Your task to perform on an android device: open a bookmark in the chrome app Image 0: 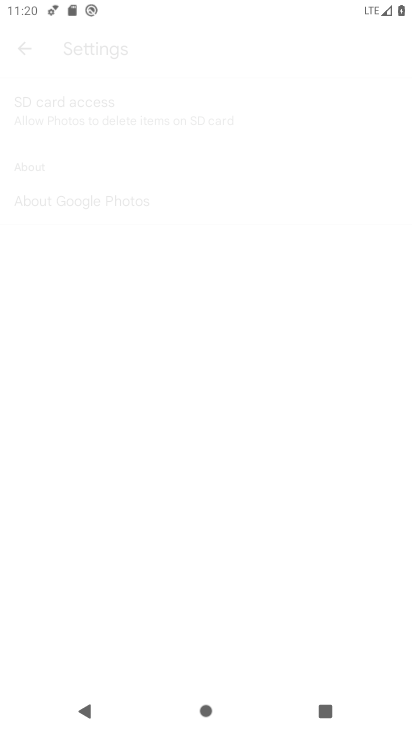
Step 0: drag from (206, 581) to (208, 7)
Your task to perform on an android device: open a bookmark in the chrome app Image 1: 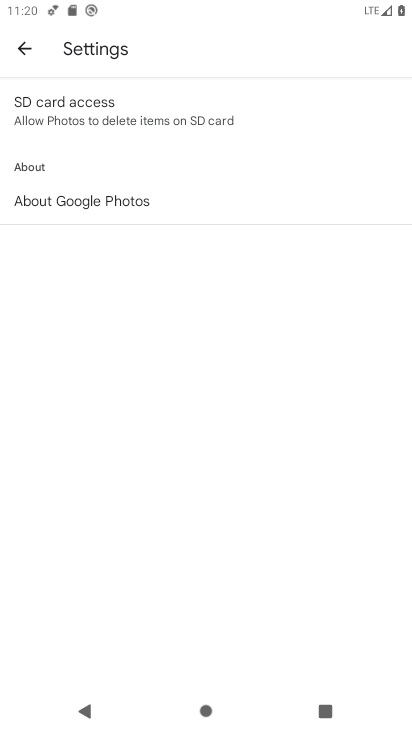
Step 1: press home button
Your task to perform on an android device: open a bookmark in the chrome app Image 2: 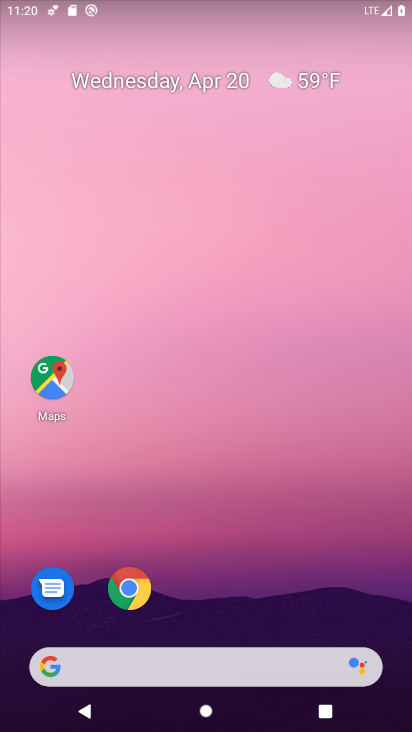
Step 2: click (129, 588)
Your task to perform on an android device: open a bookmark in the chrome app Image 3: 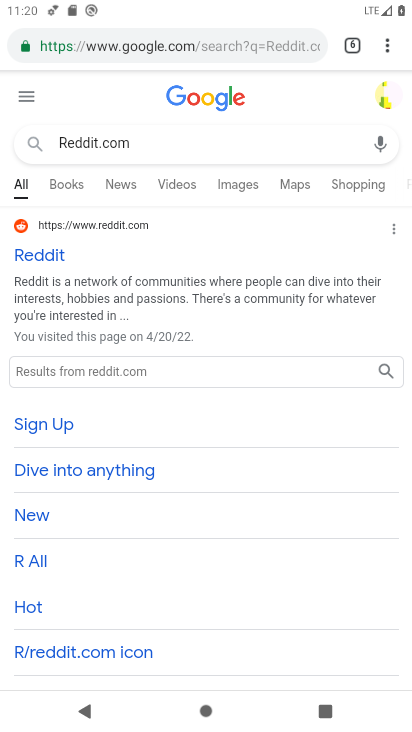
Step 3: click (385, 43)
Your task to perform on an android device: open a bookmark in the chrome app Image 4: 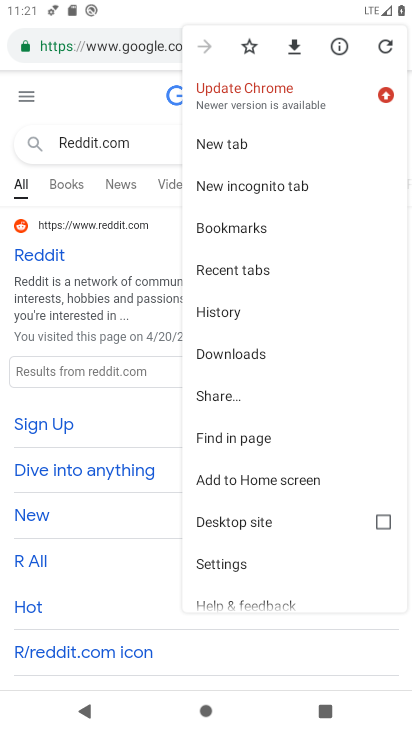
Step 4: click (241, 230)
Your task to perform on an android device: open a bookmark in the chrome app Image 5: 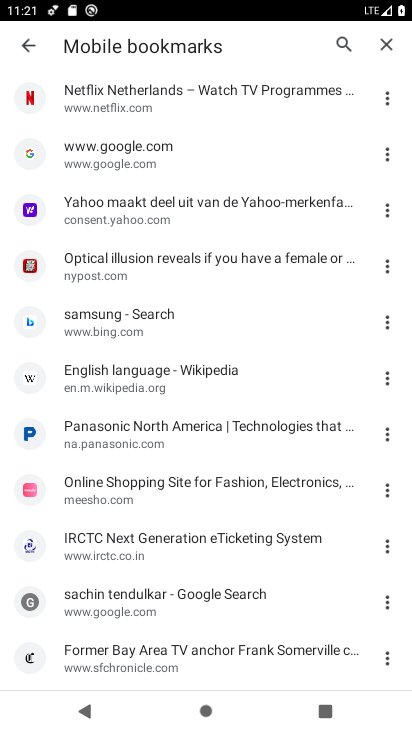
Step 5: task complete